Your task to perform on an android device: toggle javascript in the chrome app Image 0: 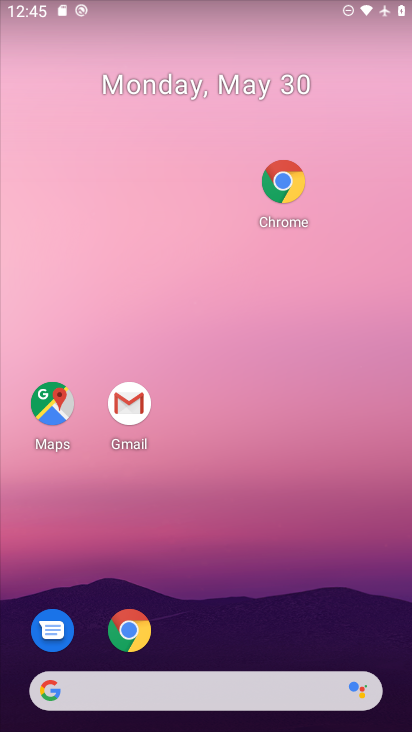
Step 0: drag from (283, 685) to (192, 160)
Your task to perform on an android device: toggle javascript in the chrome app Image 1: 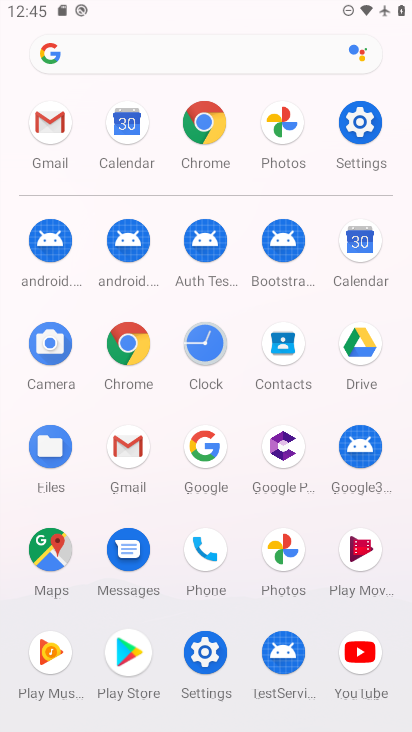
Step 1: click (194, 123)
Your task to perform on an android device: toggle javascript in the chrome app Image 2: 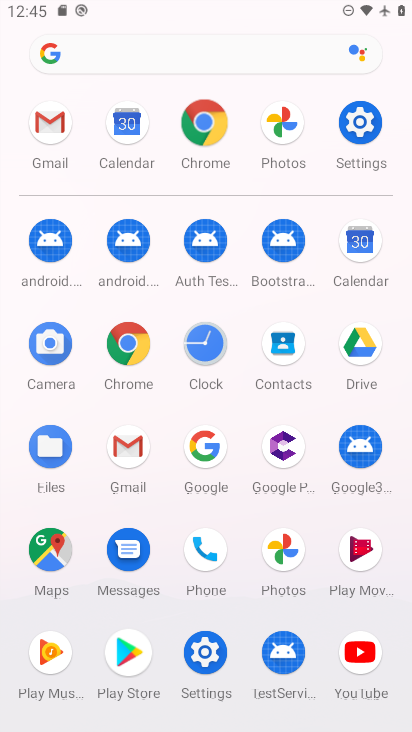
Step 2: click (201, 122)
Your task to perform on an android device: toggle javascript in the chrome app Image 3: 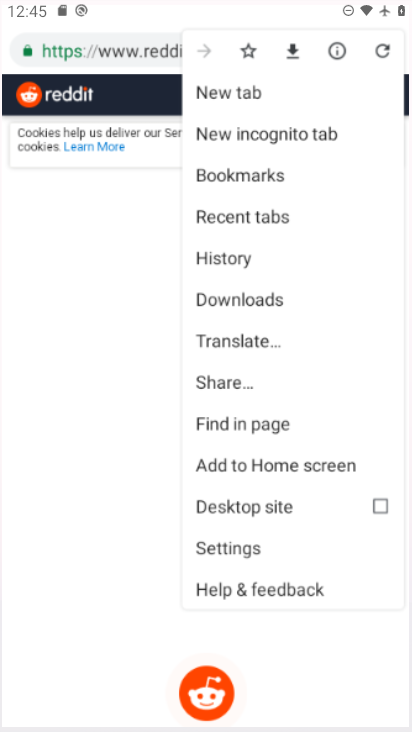
Step 3: click (204, 120)
Your task to perform on an android device: toggle javascript in the chrome app Image 4: 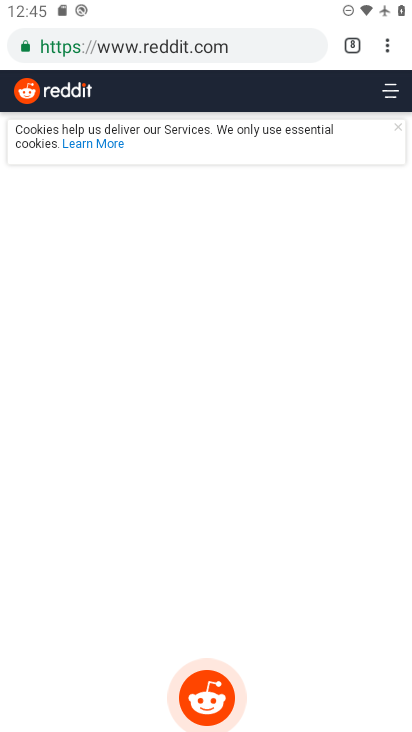
Step 4: drag from (386, 40) to (234, 550)
Your task to perform on an android device: toggle javascript in the chrome app Image 5: 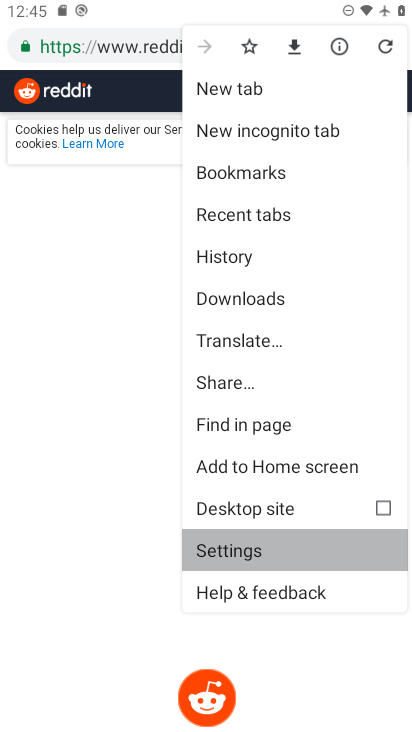
Step 5: click (241, 545)
Your task to perform on an android device: toggle javascript in the chrome app Image 6: 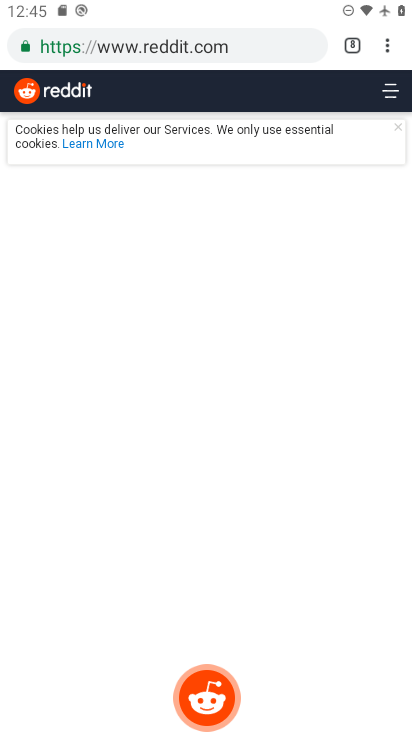
Step 6: click (241, 545)
Your task to perform on an android device: toggle javascript in the chrome app Image 7: 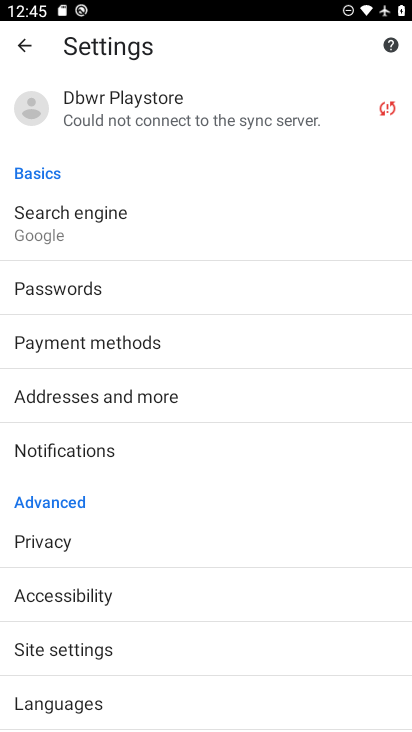
Step 7: drag from (121, 648) to (102, 213)
Your task to perform on an android device: toggle javascript in the chrome app Image 8: 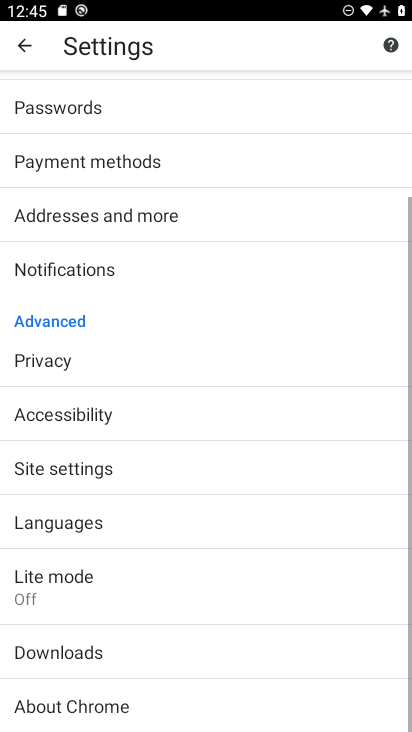
Step 8: drag from (166, 572) to (127, 305)
Your task to perform on an android device: toggle javascript in the chrome app Image 9: 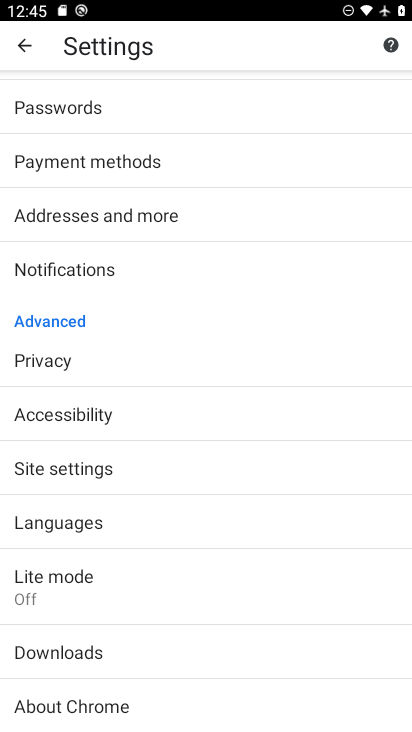
Step 9: click (60, 461)
Your task to perform on an android device: toggle javascript in the chrome app Image 10: 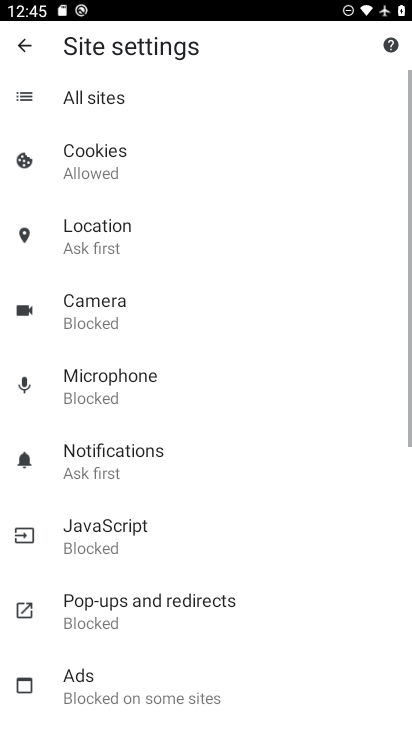
Step 10: click (49, 462)
Your task to perform on an android device: toggle javascript in the chrome app Image 11: 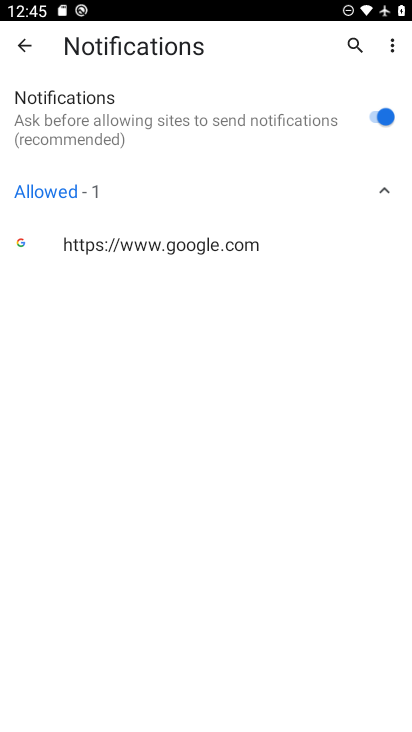
Step 11: click (15, 32)
Your task to perform on an android device: toggle javascript in the chrome app Image 12: 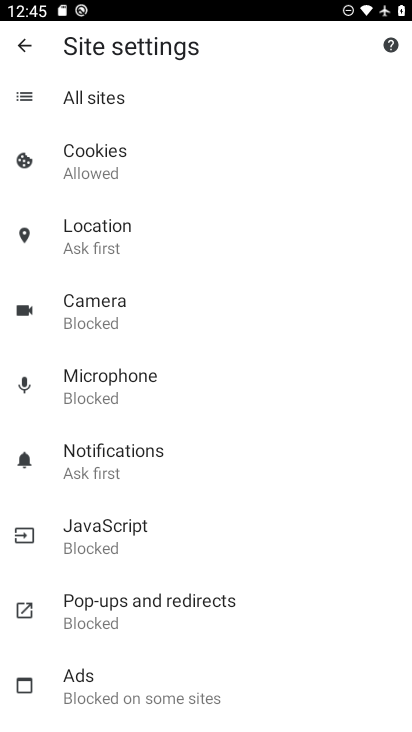
Step 12: click (95, 526)
Your task to perform on an android device: toggle javascript in the chrome app Image 13: 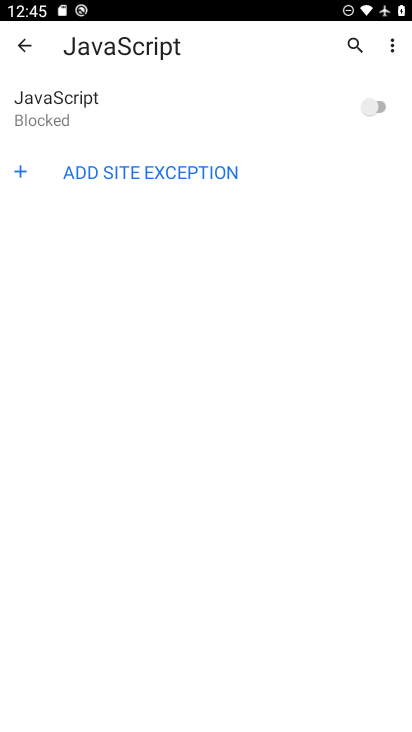
Step 13: click (369, 106)
Your task to perform on an android device: toggle javascript in the chrome app Image 14: 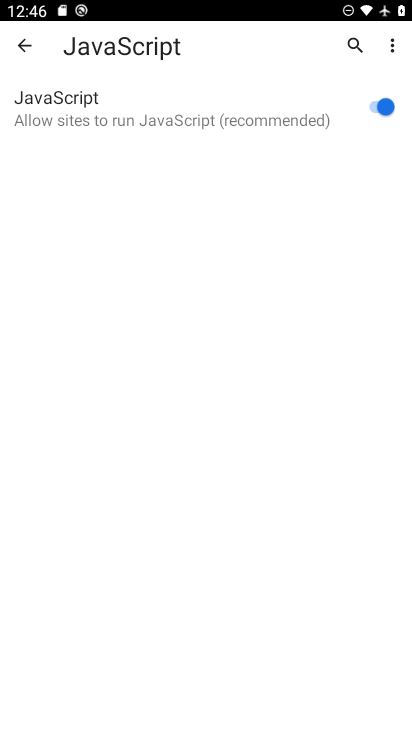
Step 14: task complete